Your task to perform on an android device: allow cookies in the chrome app Image 0: 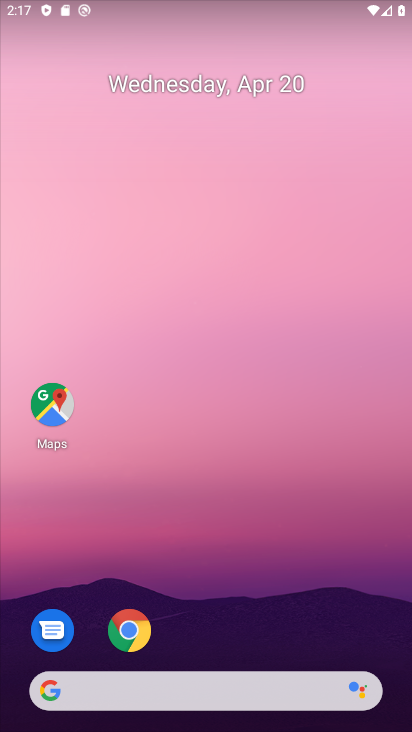
Step 0: click (140, 632)
Your task to perform on an android device: allow cookies in the chrome app Image 1: 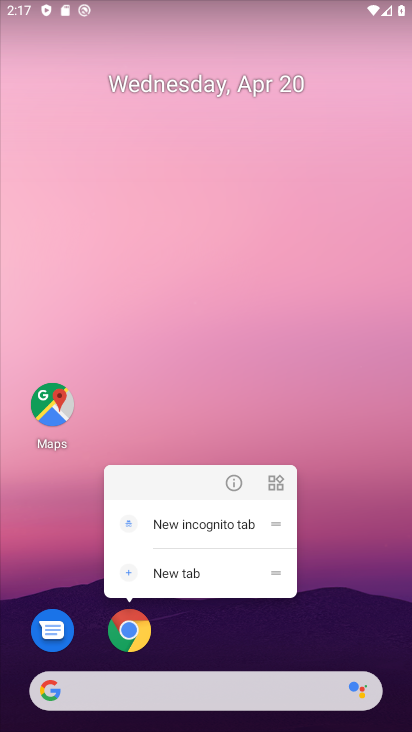
Step 1: click (140, 632)
Your task to perform on an android device: allow cookies in the chrome app Image 2: 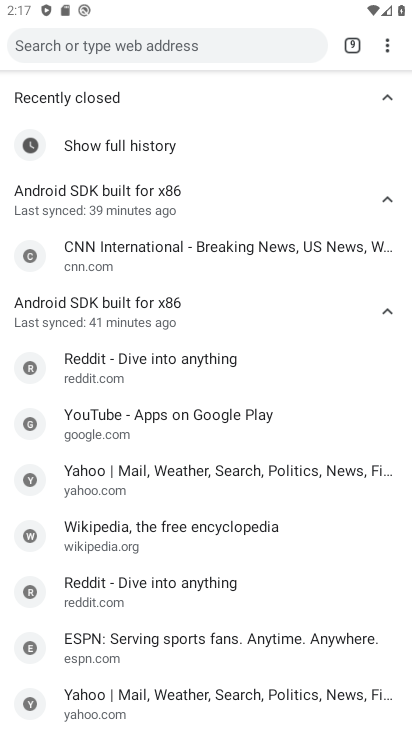
Step 2: drag from (386, 51) to (241, 444)
Your task to perform on an android device: allow cookies in the chrome app Image 3: 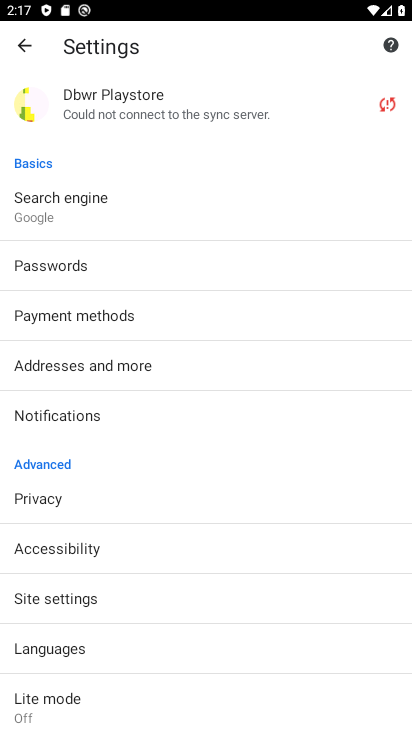
Step 3: click (41, 595)
Your task to perform on an android device: allow cookies in the chrome app Image 4: 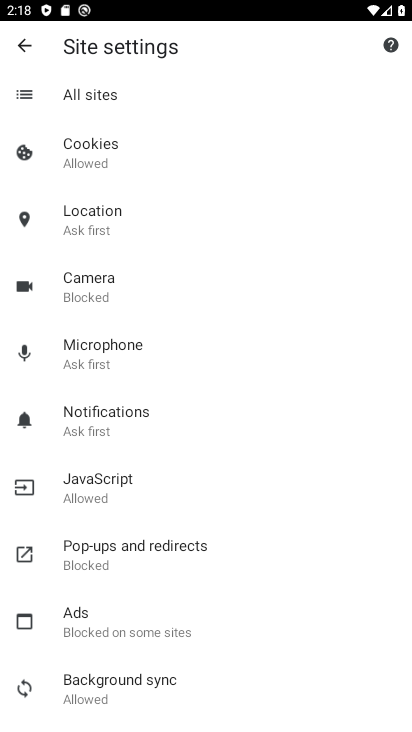
Step 4: click (73, 154)
Your task to perform on an android device: allow cookies in the chrome app Image 5: 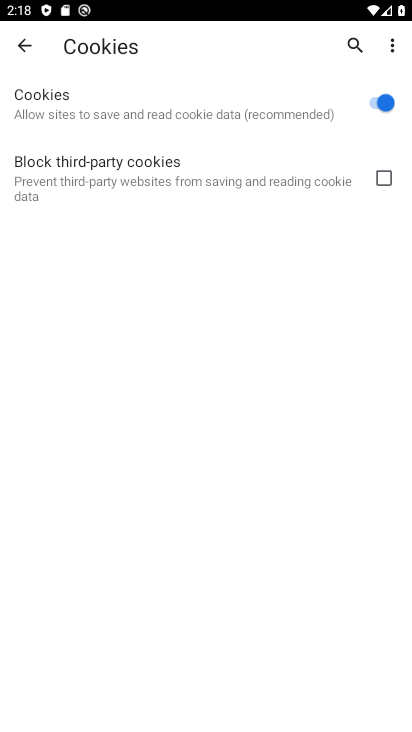
Step 5: task complete